Your task to perform on an android device: change text size in settings app Image 0: 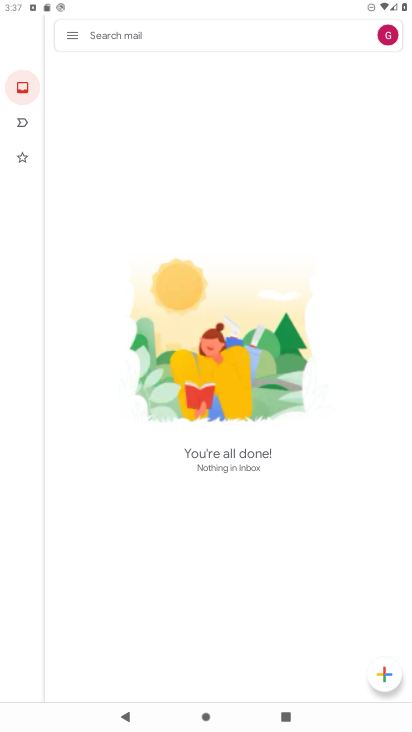
Step 0: press home button
Your task to perform on an android device: change text size in settings app Image 1: 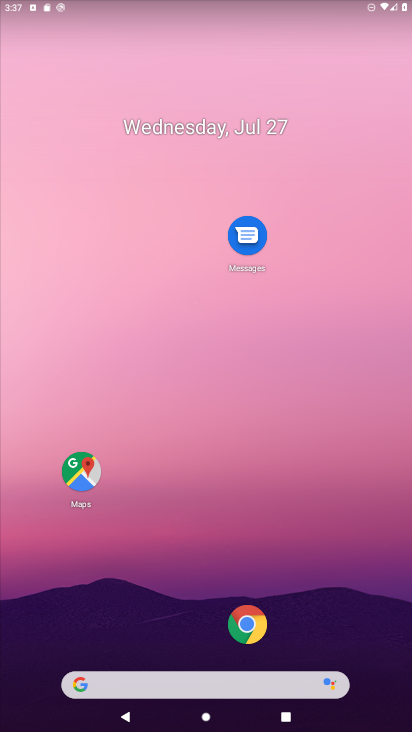
Step 1: drag from (151, 594) to (196, 94)
Your task to perform on an android device: change text size in settings app Image 2: 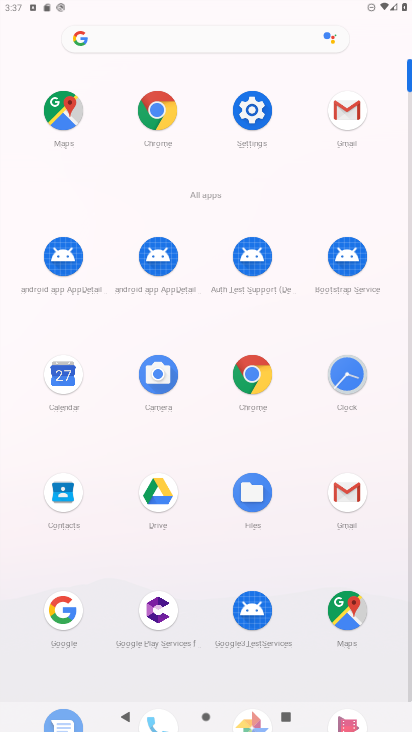
Step 2: click (233, 110)
Your task to perform on an android device: change text size in settings app Image 3: 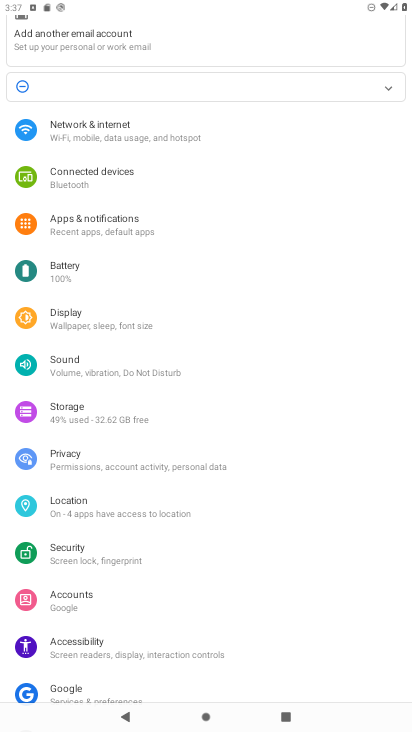
Step 3: click (116, 326)
Your task to perform on an android device: change text size in settings app Image 4: 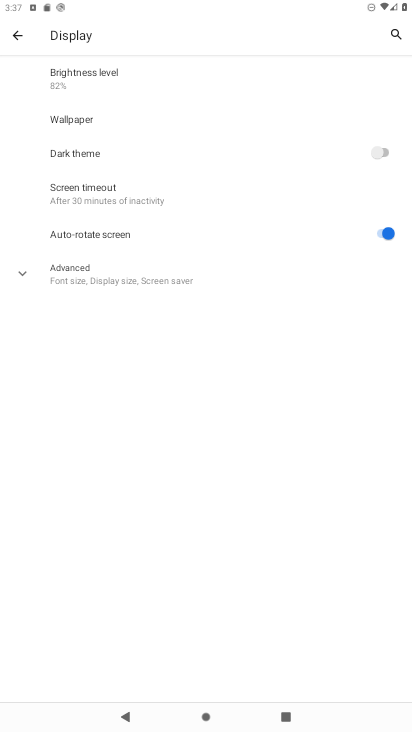
Step 4: click (125, 291)
Your task to perform on an android device: change text size in settings app Image 5: 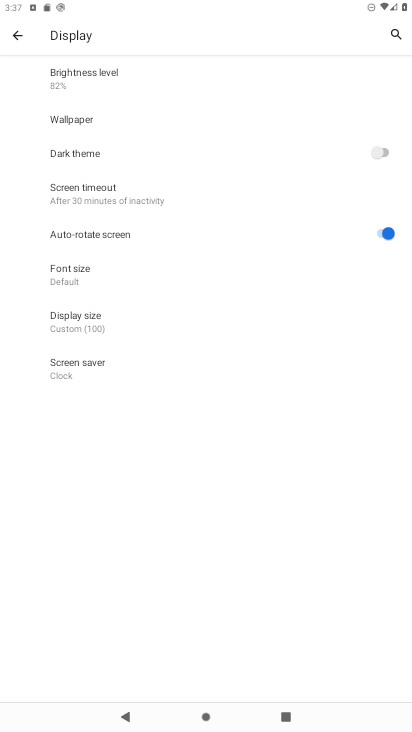
Step 5: click (73, 277)
Your task to perform on an android device: change text size in settings app Image 6: 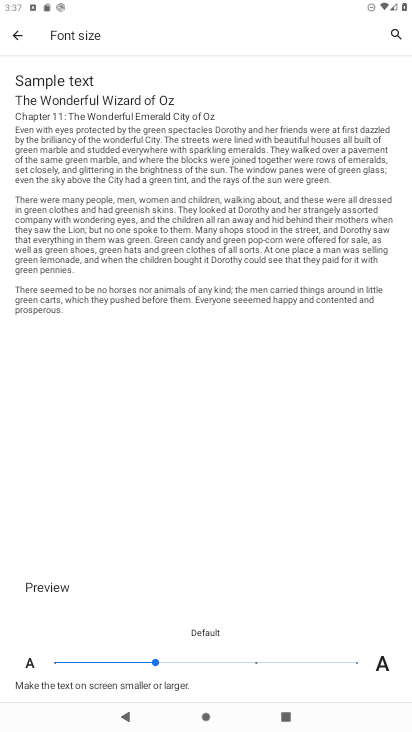
Step 6: click (57, 662)
Your task to perform on an android device: change text size in settings app Image 7: 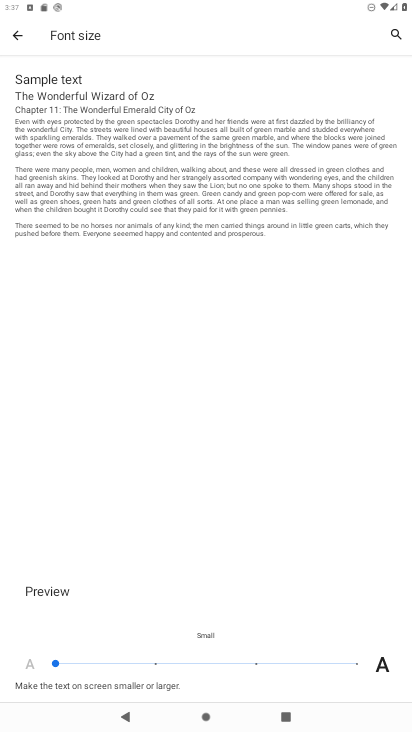
Step 7: task complete